Your task to perform on an android device: change the clock display to digital Image 0: 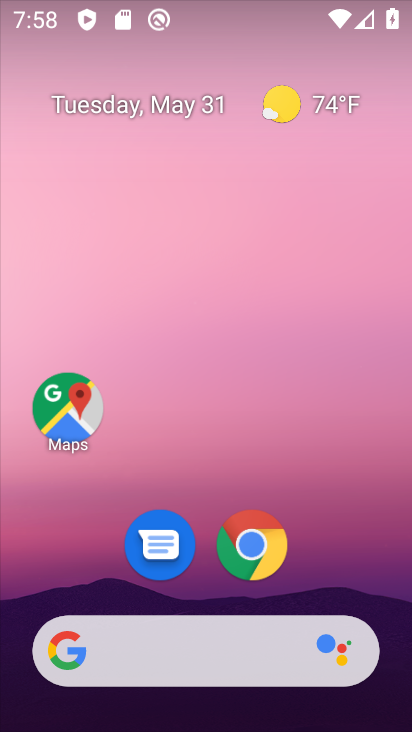
Step 0: drag from (348, 525) to (266, 0)
Your task to perform on an android device: change the clock display to digital Image 1: 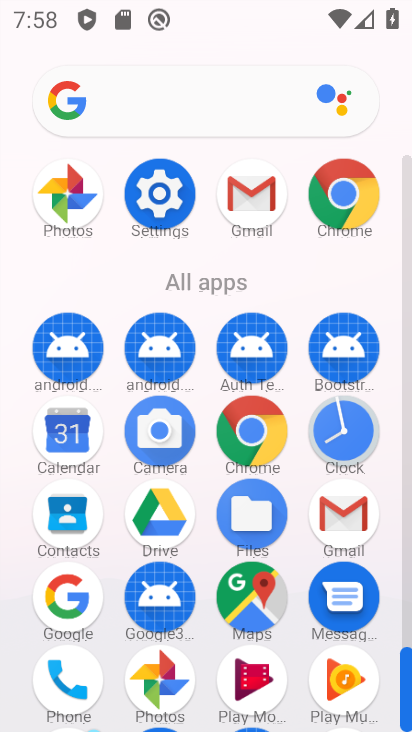
Step 1: drag from (12, 632) to (3, 308)
Your task to perform on an android device: change the clock display to digital Image 2: 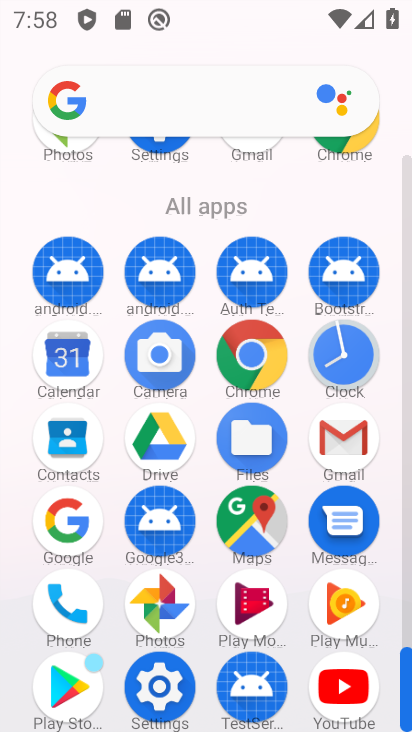
Step 2: click (343, 350)
Your task to perform on an android device: change the clock display to digital Image 3: 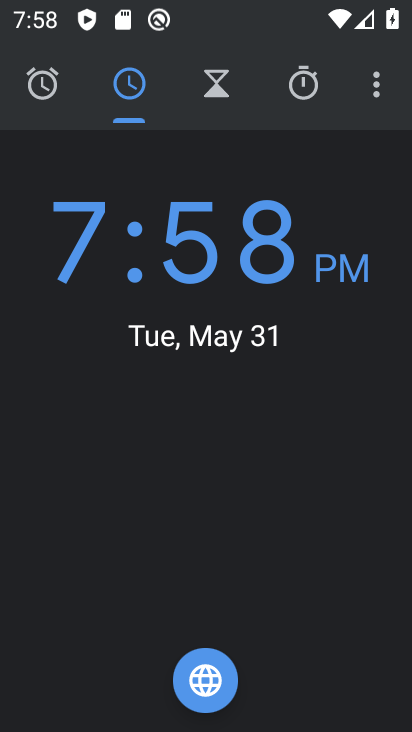
Step 3: drag from (377, 82) to (184, 167)
Your task to perform on an android device: change the clock display to digital Image 4: 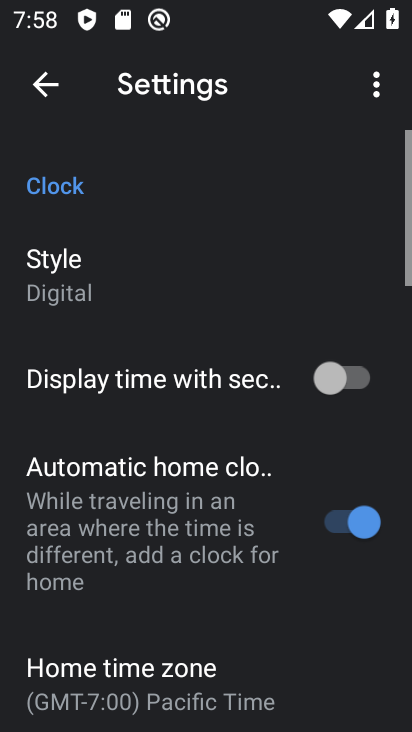
Step 4: click (120, 282)
Your task to perform on an android device: change the clock display to digital Image 5: 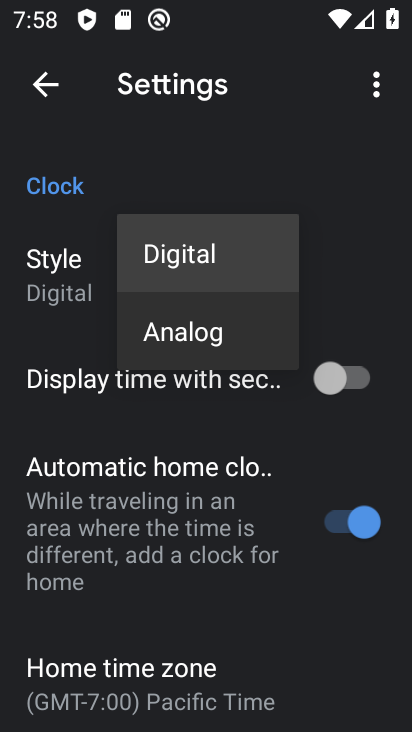
Step 5: click (168, 339)
Your task to perform on an android device: change the clock display to digital Image 6: 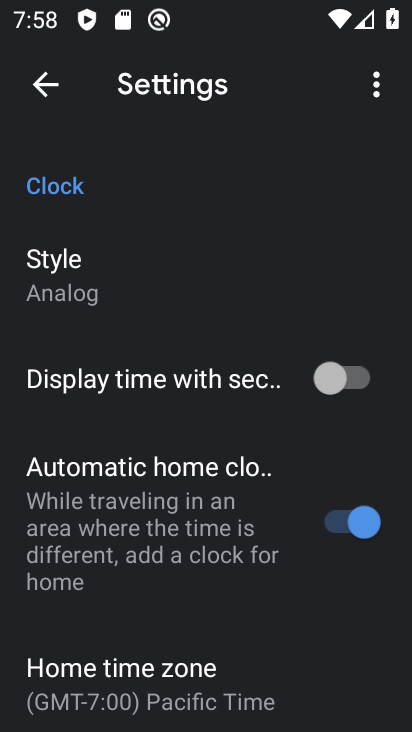
Step 6: click (85, 280)
Your task to perform on an android device: change the clock display to digital Image 7: 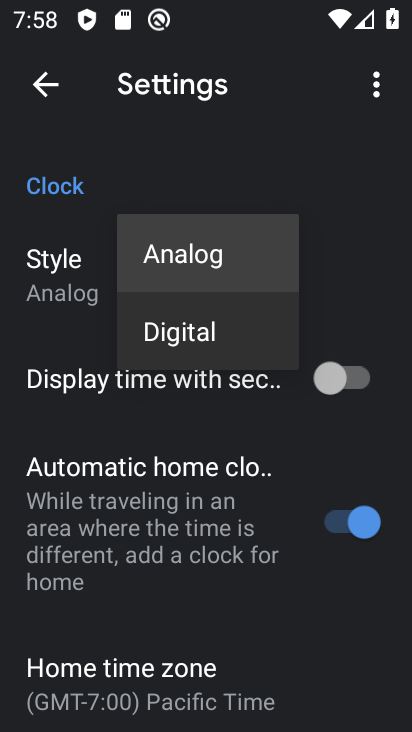
Step 7: click (167, 331)
Your task to perform on an android device: change the clock display to digital Image 8: 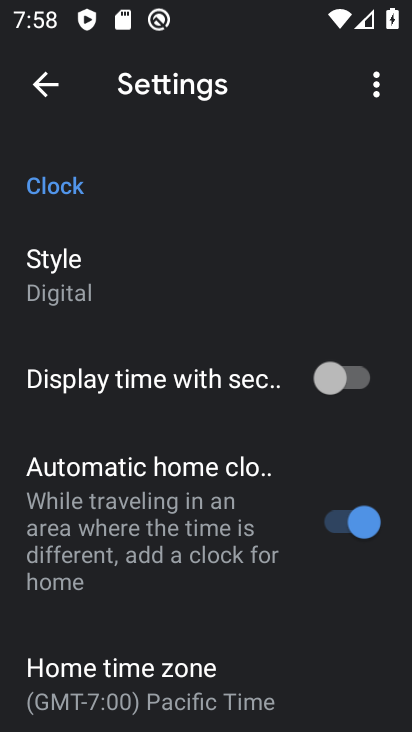
Step 8: task complete